Your task to perform on an android device: toggle data saver in the chrome app Image 0: 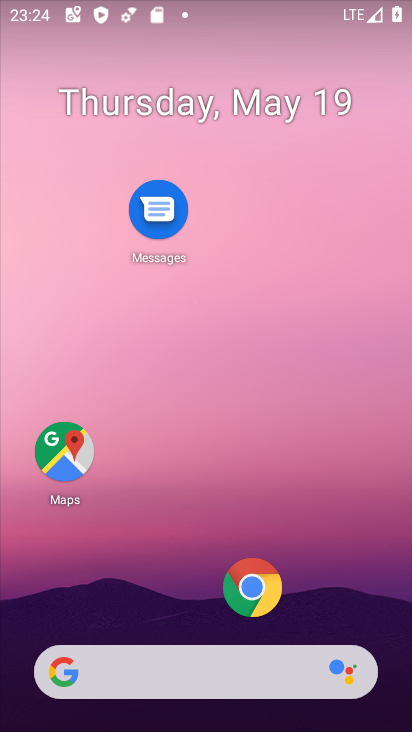
Step 0: click (258, 608)
Your task to perform on an android device: toggle data saver in the chrome app Image 1: 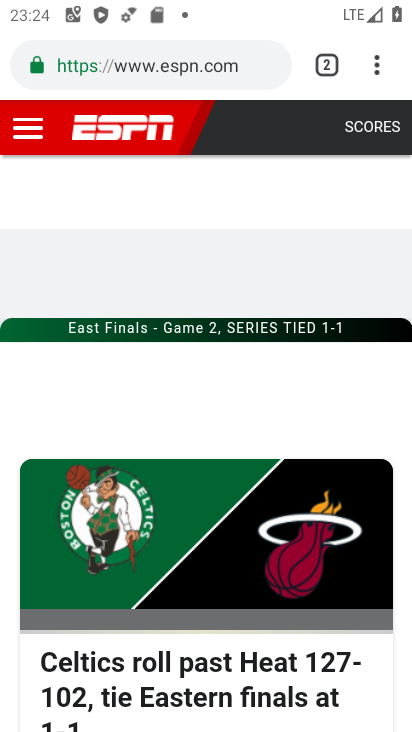
Step 1: click (383, 64)
Your task to perform on an android device: toggle data saver in the chrome app Image 2: 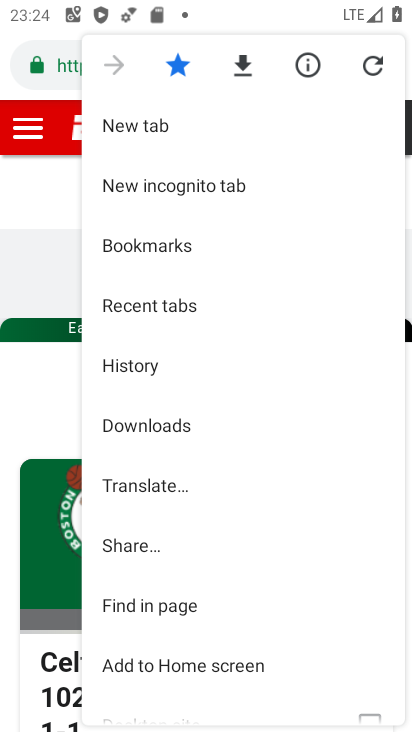
Step 2: drag from (154, 610) to (280, 52)
Your task to perform on an android device: toggle data saver in the chrome app Image 3: 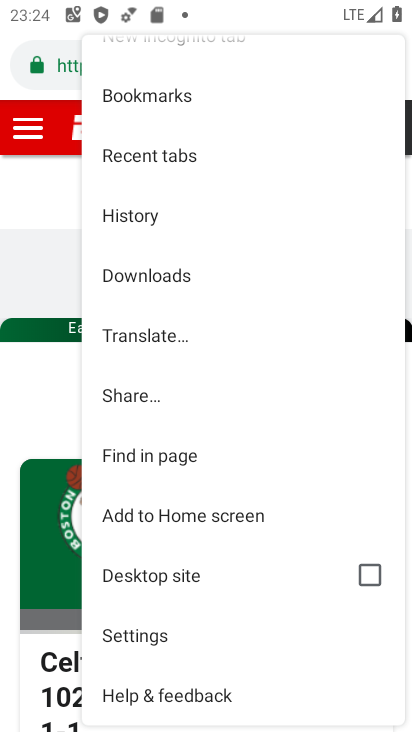
Step 3: click (140, 623)
Your task to perform on an android device: toggle data saver in the chrome app Image 4: 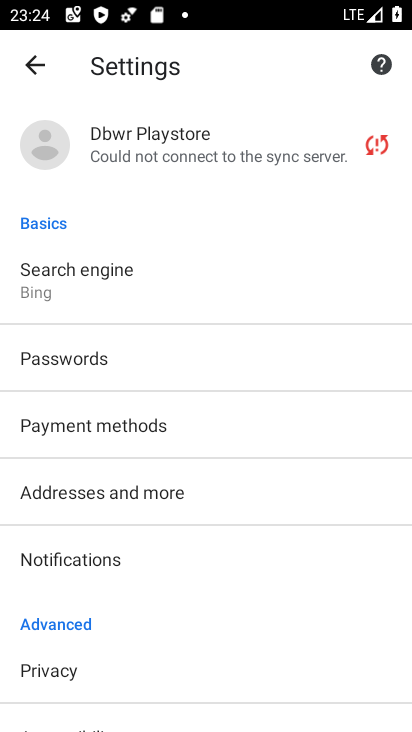
Step 4: drag from (140, 623) to (171, 285)
Your task to perform on an android device: toggle data saver in the chrome app Image 5: 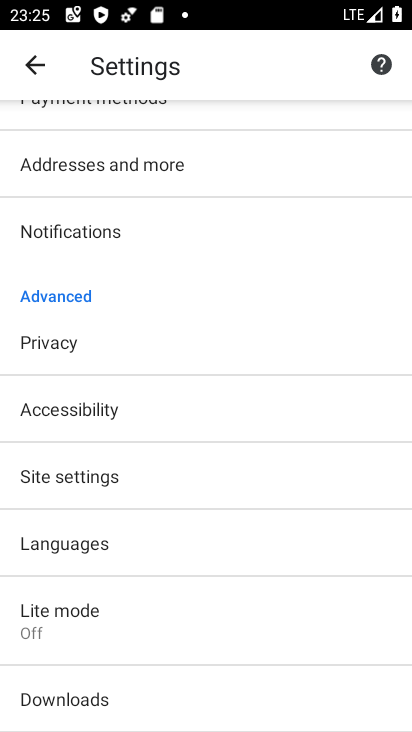
Step 5: click (65, 471)
Your task to perform on an android device: toggle data saver in the chrome app Image 6: 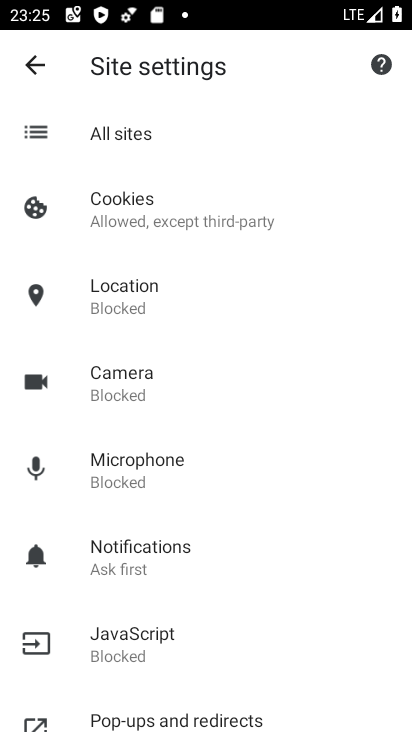
Step 6: drag from (139, 593) to (172, 361)
Your task to perform on an android device: toggle data saver in the chrome app Image 7: 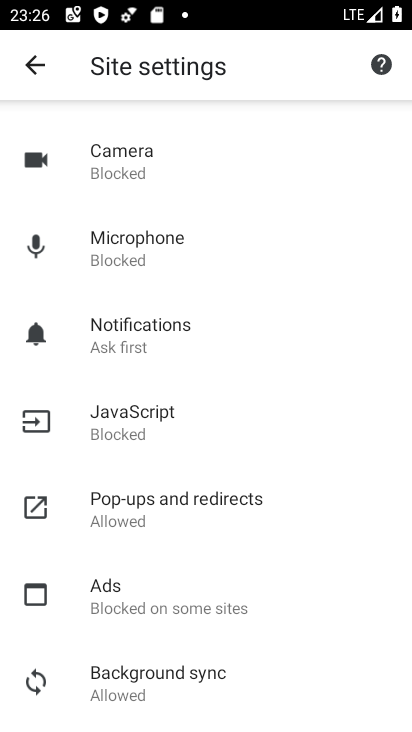
Step 7: drag from (172, 361) to (214, 677)
Your task to perform on an android device: toggle data saver in the chrome app Image 8: 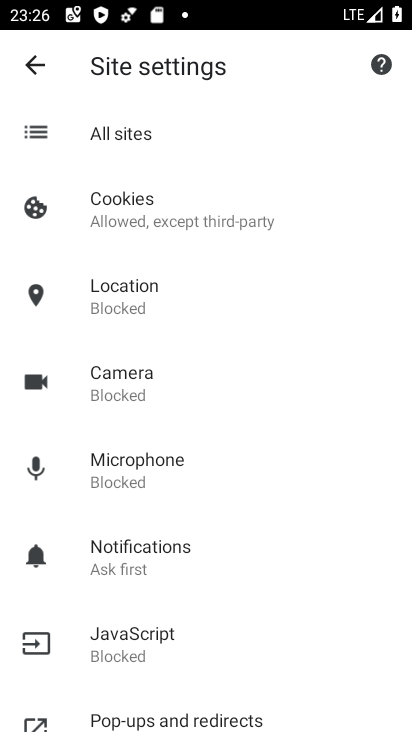
Step 8: click (36, 66)
Your task to perform on an android device: toggle data saver in the chrome app Image 9: 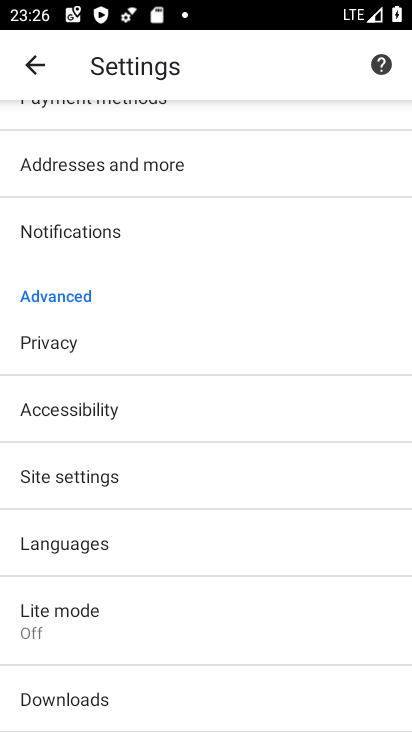
Step 9: click (108, 641)
Your task to perform on an android device: toggle data saver in the chrome app Image 10: 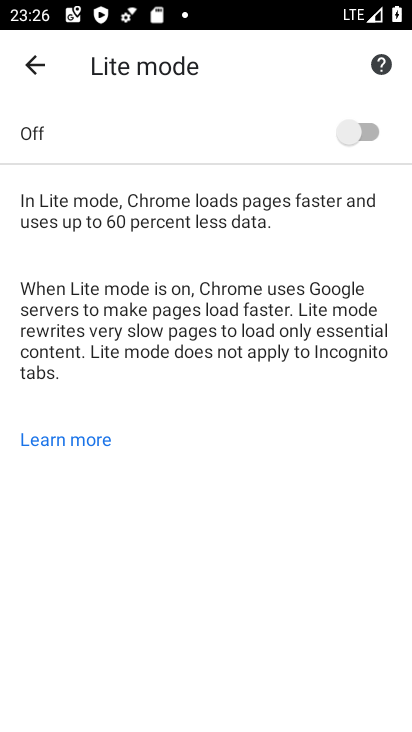
Step 10: click (363, 138)
Your task to perform on an android device: toggle data saver in the chrome app Image 11: 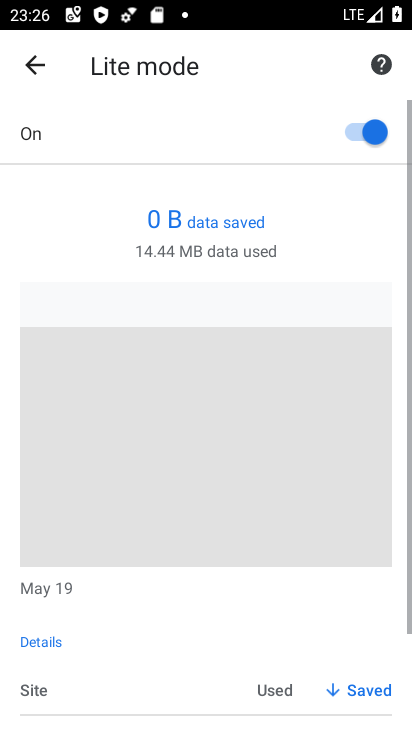
Step 11: click (363, 138)
Your task to perform on an android device: toggle data saver in the chrome app Image 12: 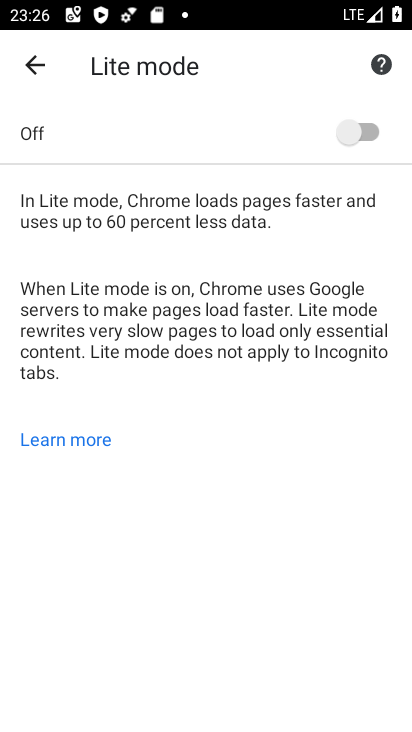
Step 12: task complete